Your task to perform on an android device: Open Wikipedia Image 0: 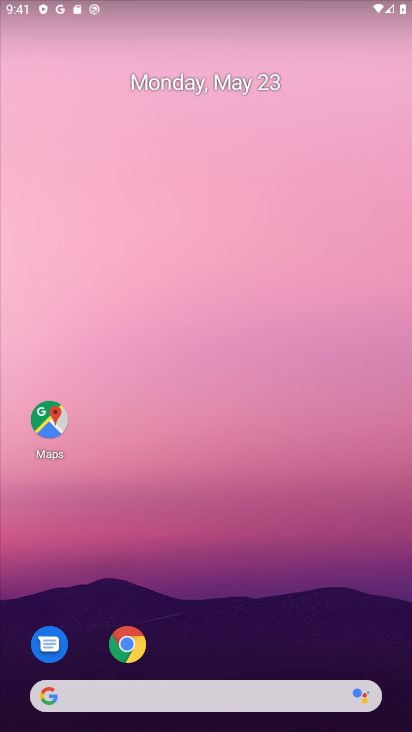
Step 0: click (133, 635)
Your task to perform on an android device: Open Wikipedia Image 1: 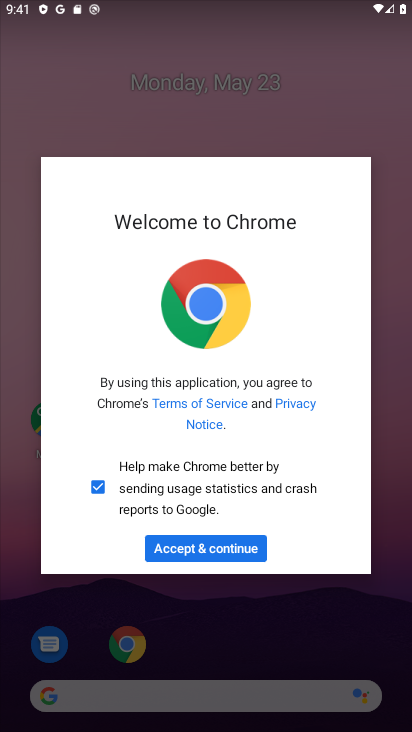
Step 1: click (212, 548)
Your task to perform on an android device: Open Wikipedia Image 2: 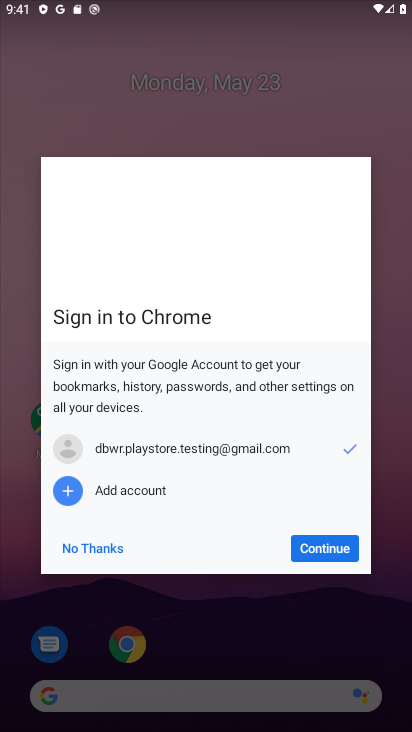
Step 2: click (304, 553)
Your task to perform on an android device: Open Wikipedia Image 3: 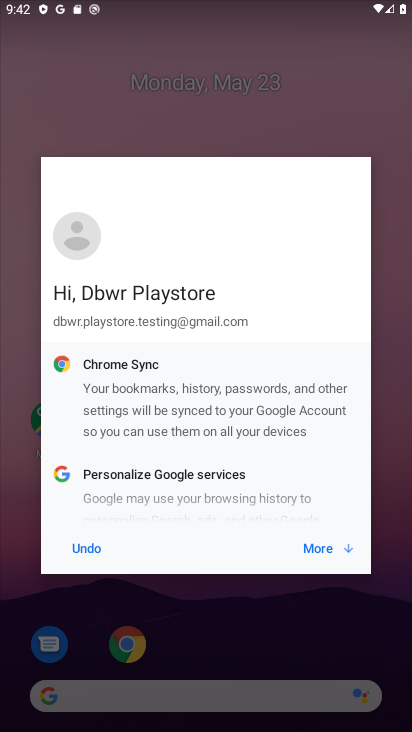
Step 3: click (304, 553)
Your task to perform on an android device: Open Wikipedia Image 4: 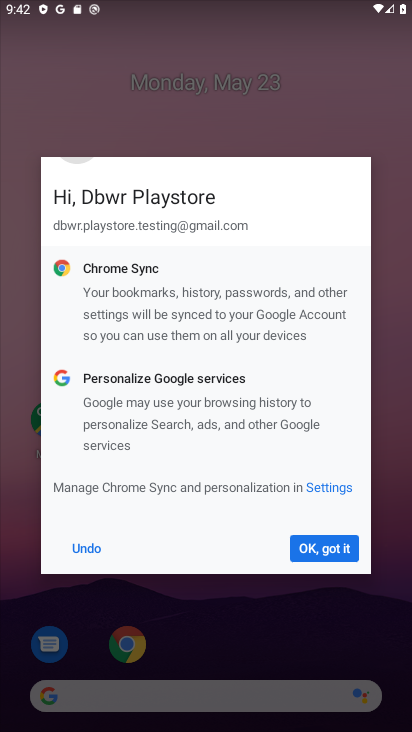
Step 4: click (304, 553)
Your task to perform on an android device: Open Wikipedia Image 5: 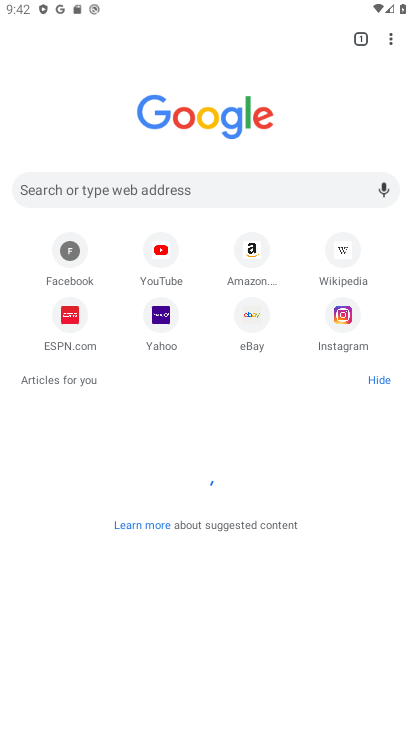
Step 5: click (348, 250)
Your task to perform on an android device: Open Wikipedia Image 6: 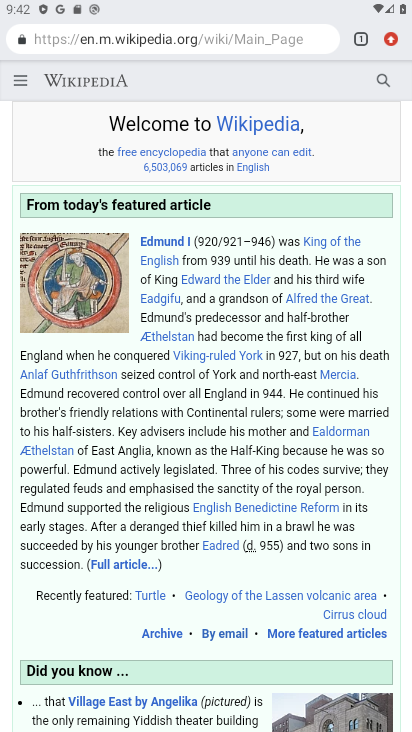
Step 6: task complete